Your task to perform on an android device: Open the calendar app, open the side menu, and click the "Day" option Image 0: 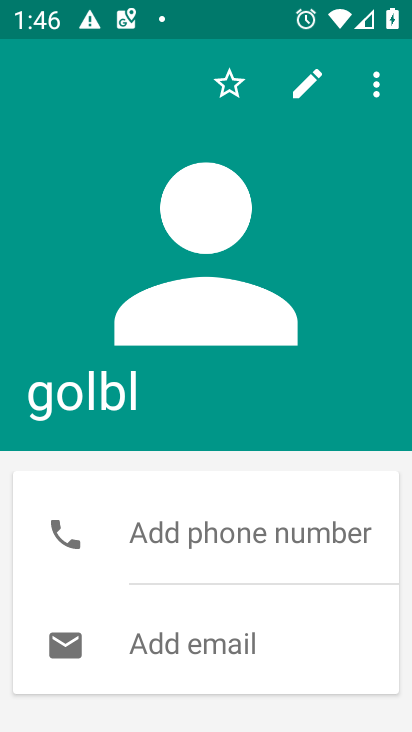
Step 0: press home button
Your task to perform on an android device: Open the calendar app, open the side menu, and click the "Day" option Image 1: 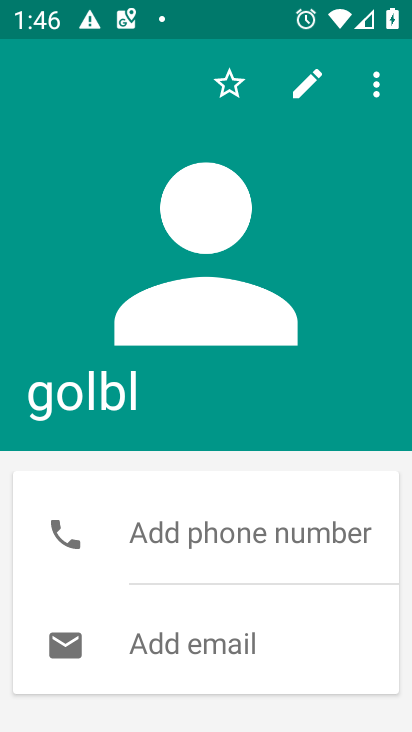
Step 1: press home button
Your task to perform on an android device: Open the calendar app, open the side menu, and click the "Day" option Image 2: 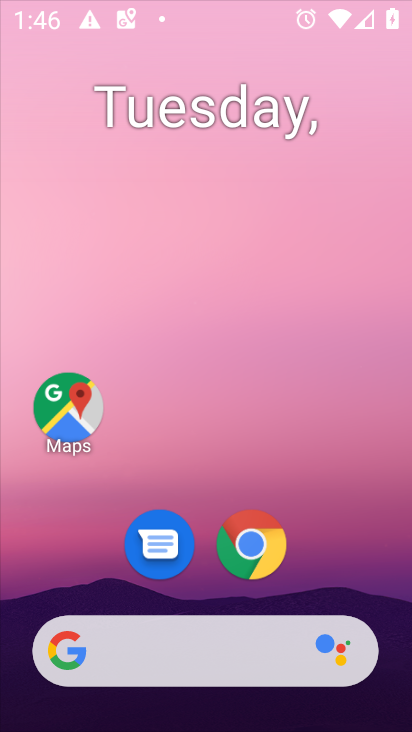
Step 2: press home button
Your task to perform on an android device: Open the calendar app, open the side menu, and click the "Day" option Image 3: 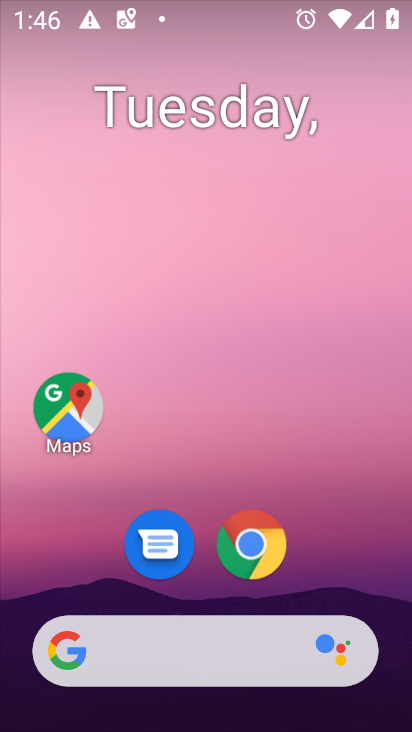
Step 3: drag from (334, 565) to (319, 71)
Your task to perform on an android device: Open the calendar app, open the side menu, and click the "Day" option Image 4: 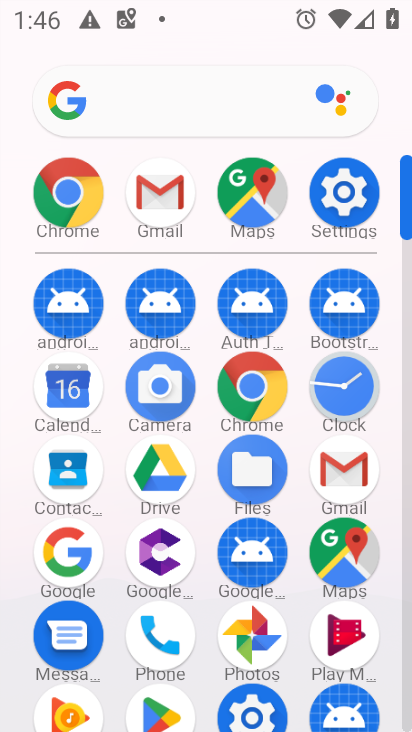
Step 4: click (46, 378)
Your task to perform on an android device: Open the calendar app, open the side menu, and click the "Day" option Image 5: 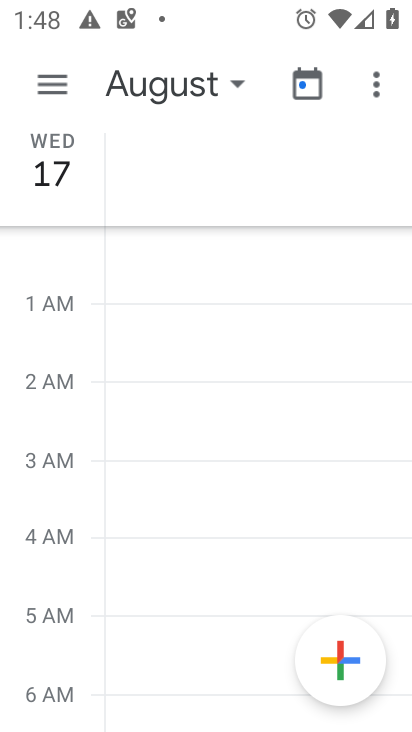
Step 5: click (66, 84)
Your task to perform on an android device: Open the calendar app, open the side menu, and click the "Day" option Image 6: 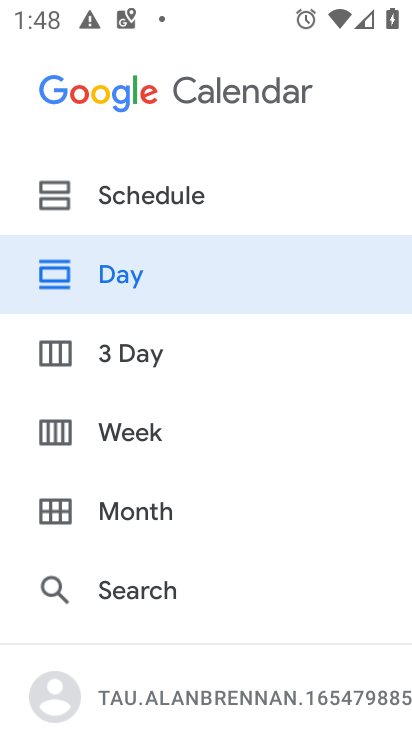
Step 6: click (147, 299)
Your task to perform on an android device: Open the calendar app, open the side menu, and click the "Day" option Image 7: 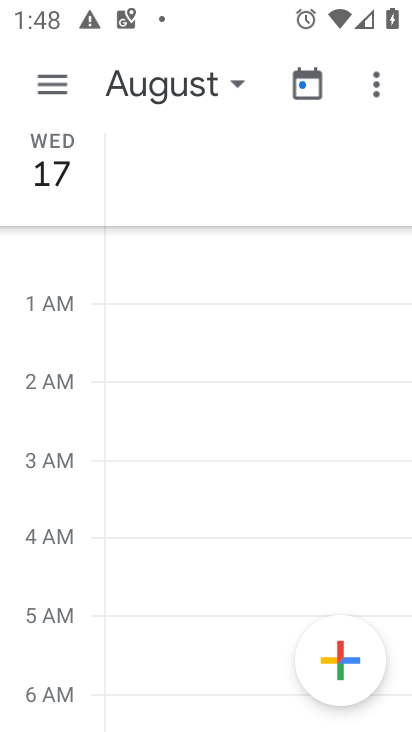
Step 7: task complete